Your task to perform on an android device: Open the map Image 0: 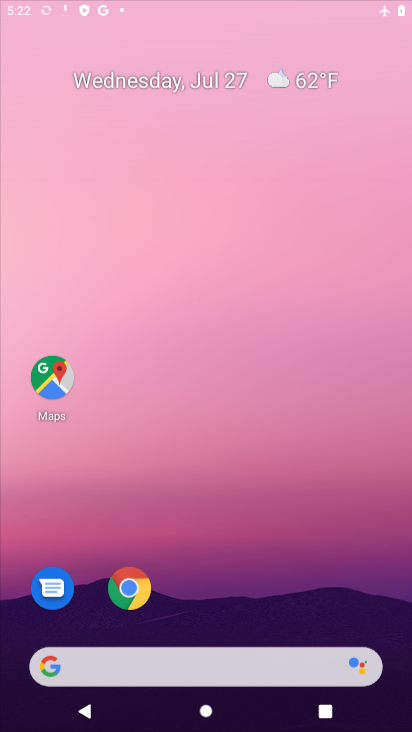
Step 0: click (133, 588)
Your task to perform on an android device: Open the map Image 1: 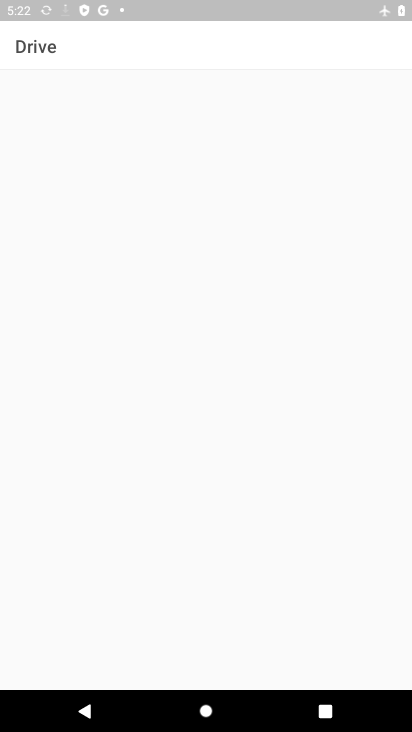
Step 1: press home button
Your task to perform on an android device: Open the map Image 2: 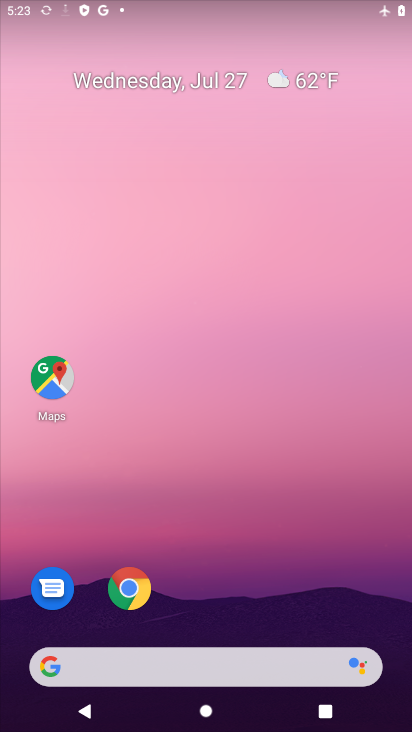
Step 2: click (55, 392)
Your task to perform on an android device: Open the map Image 3: 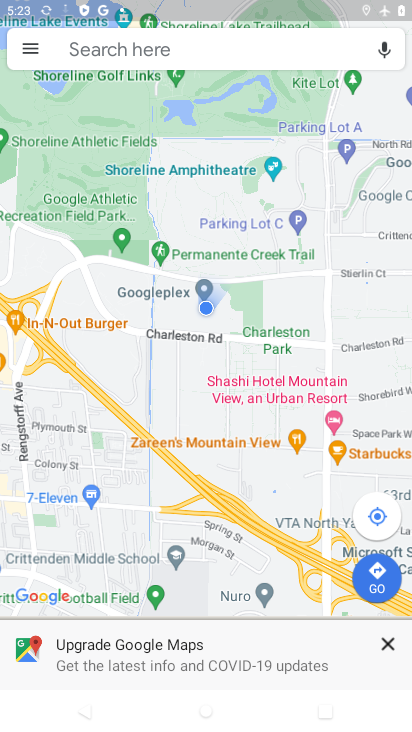
Step 3: task complete